Your task to perform on an android device: Open Reddit.com Image 0: 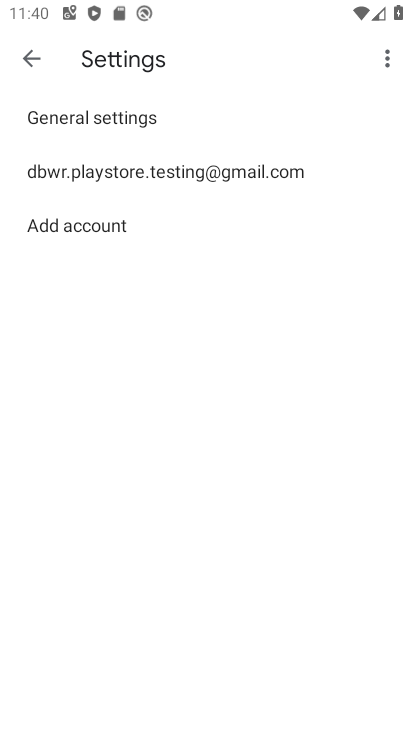
Step 0: press home button
Your task to perform on an android device: Open Reddit.com Image 1: 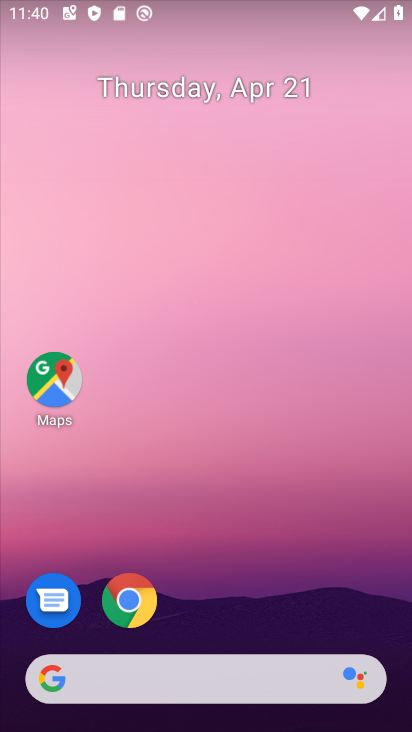
Step 1: click (136, 606)
Your task to perform on an android device: Open Reddit.com Image 2: 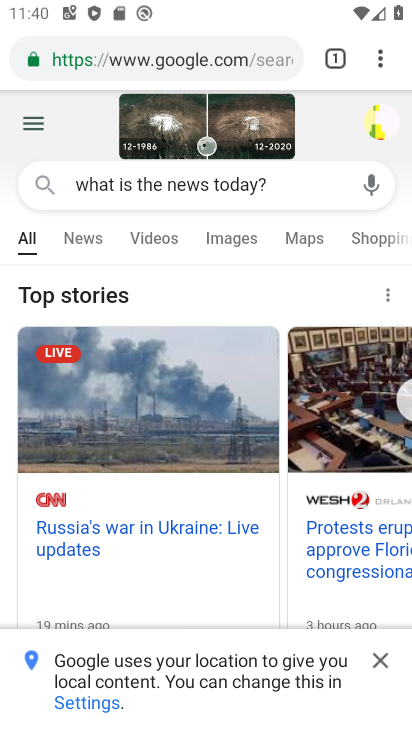
Step 2: click (222, 65)
Your task to perform on an android device: Open Reddit.com Image 3: 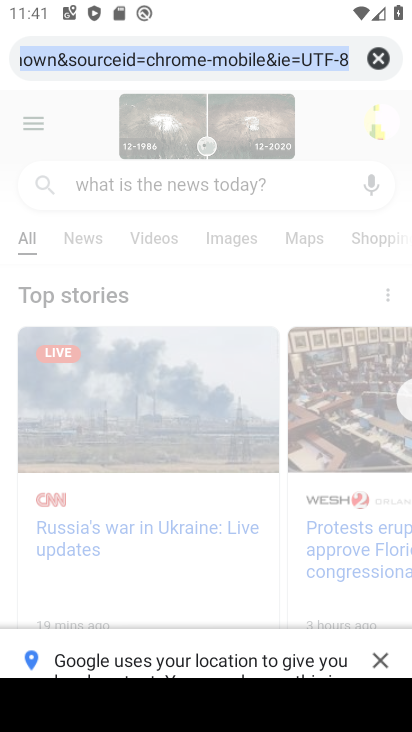
Step 3: type "Reddit.com"
Your task to perform on an android device: Open Reddit.com Image 4: 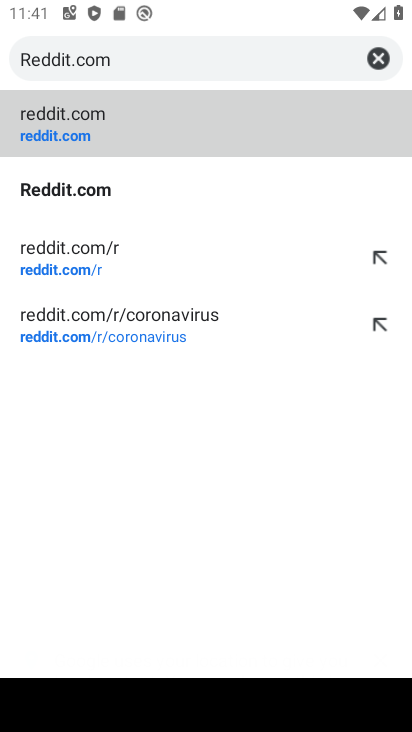
Step 4: click (67, 128)
Your task to perform on an android device: Open Reddit.com Image 5: 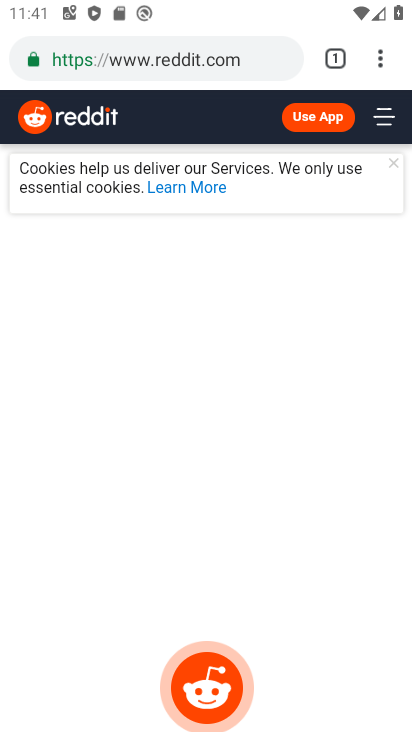
Step 5: task complete